Your task to perform on an android device: When is my next appointment? Image 0: 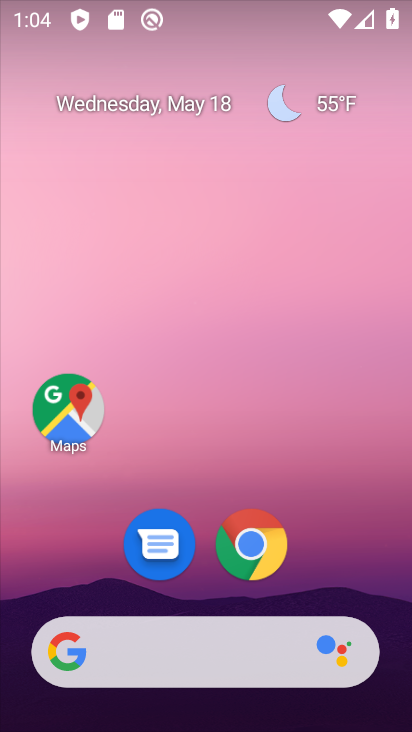
Step 0: drag from (310, 570) to (275, 103)
Your task to perform on an android device: When is my next appointment? Image 1: 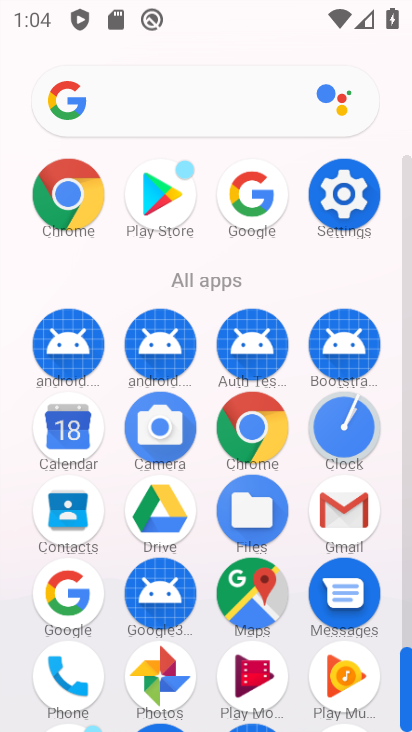
Step 1: click (69, 437)
Your task to perform on an android device: When is my next appointment? Image 2: 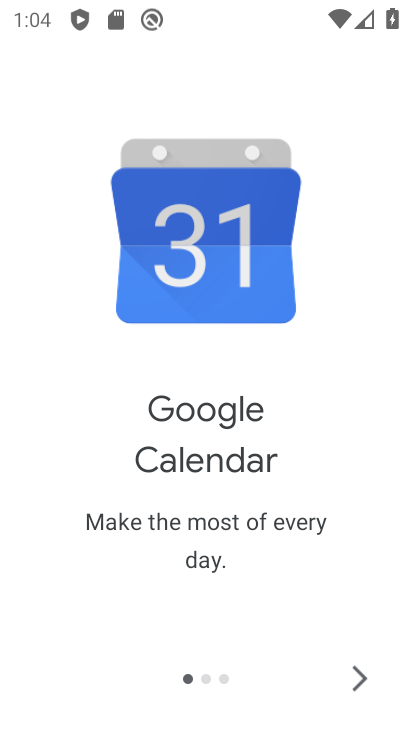
Step 2: click (355, 682)
Your task to perform on an android device: When is my next appointment? Image 3: 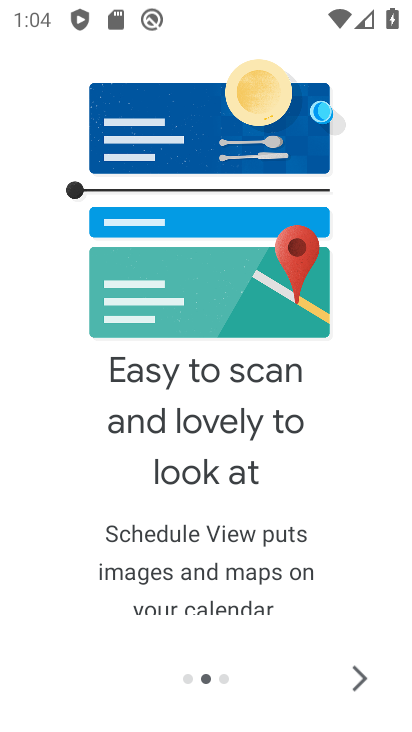
Step 3: click (355, 682)
Your task to perform on an android device: When is my next appointment? Image 4: 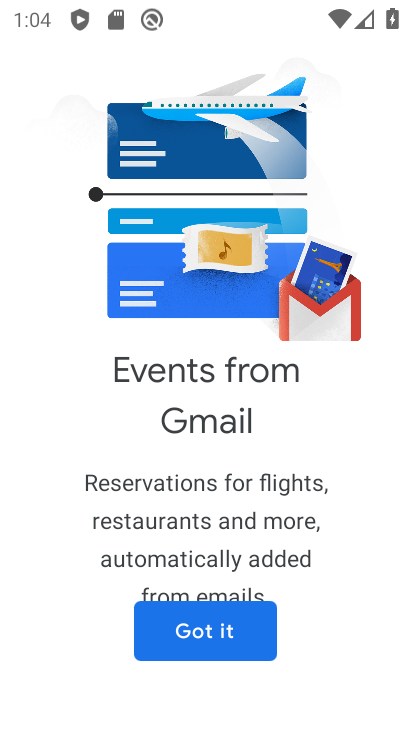
Step 4: click (355, 682)
Your task to perform on an android device: When is my next appointment? Image 5: 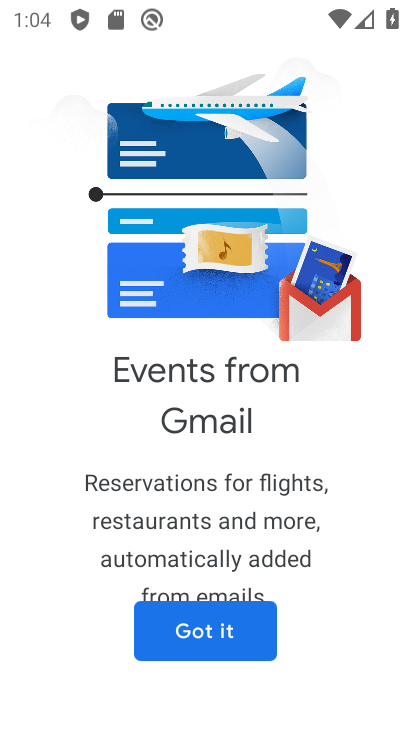
Step 5: click (238, 640)
Your task to perform on an android device: When is my next appointment? Image 6: 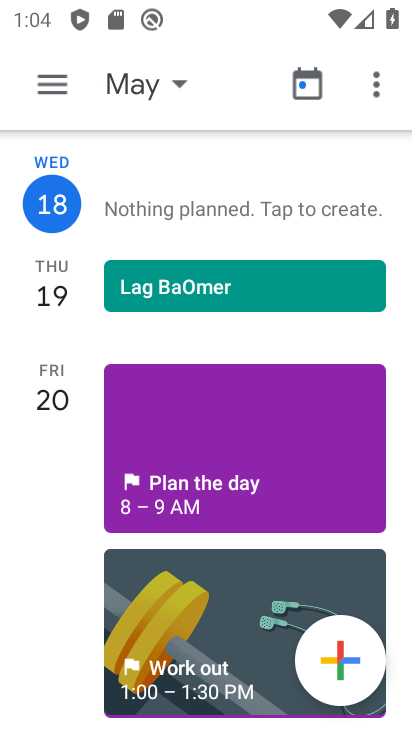
Step 6: click (238, 640)
Your task to perform on an android device: When is my next appointment? Image 7: 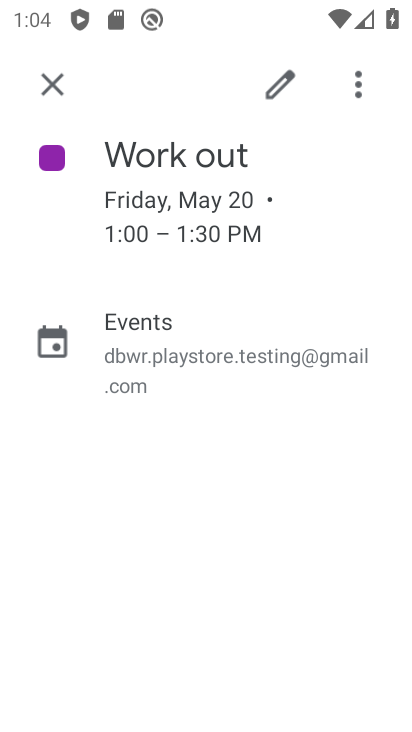
Step 7: click (56, 82)
Your task to perform on an android device: When is my next appointment? Image 8: 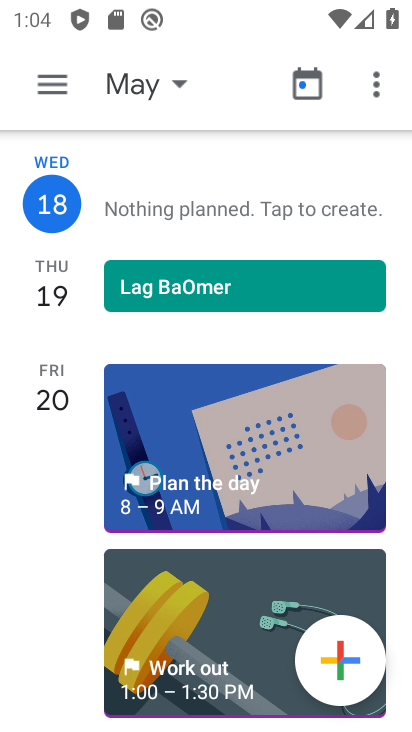
Step 8: task complete